Your task to perform on an android device: Search for vegetarian restaurants on Maps Image 0: 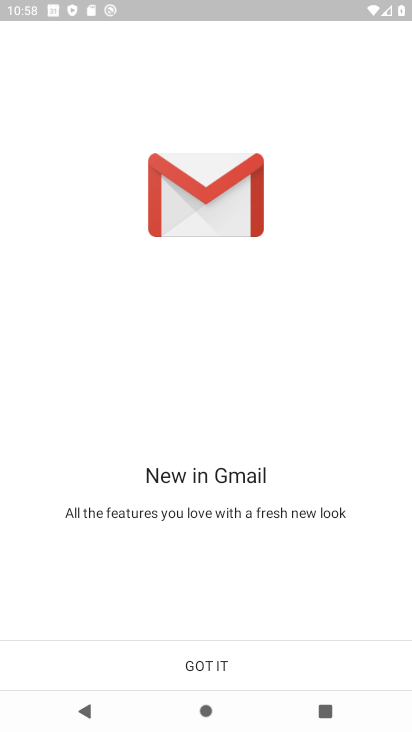
Step 0: press home button
Your task to perform on an android device: Search for vegetarian restaurants on Maps Image 1: 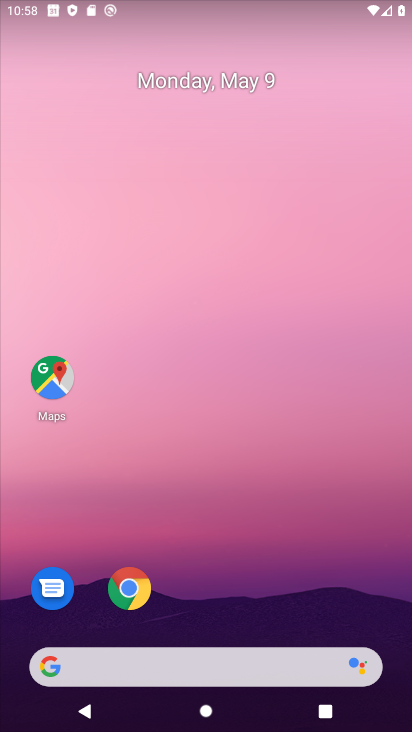
Step 1: click (34, 371)
Your task to perform on an android device: Search for vegetarian restaurants on Maps Image 2: 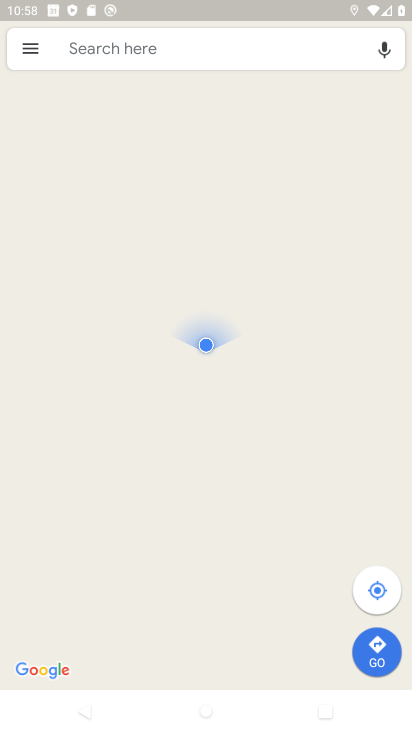
Step 2: click (147, 49)
Your task to perform on an android device: Search for vegetarian restaurants on Maps Image 3: 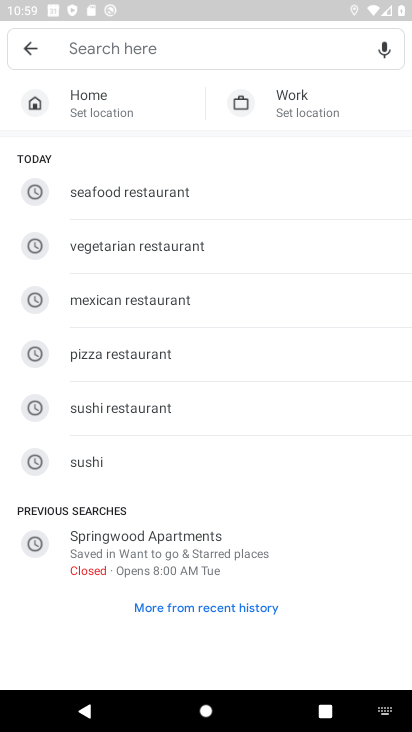
Step 3: type "veget"
Your task to perform on an android device: Search for vegetarian restaurants on Maps Image 4: 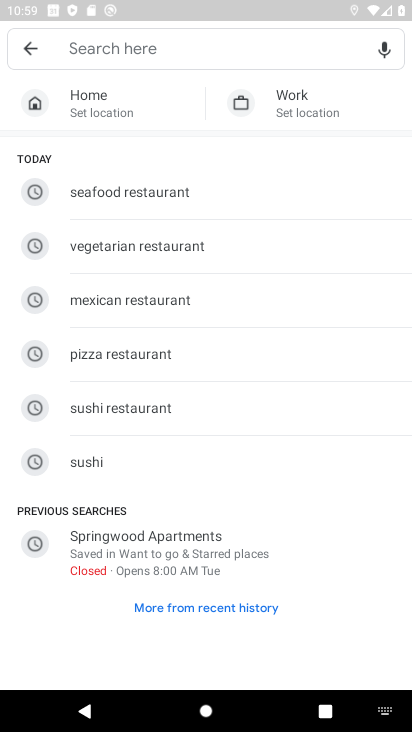
Step 4: click (116, 236)
Your task to perform on an android device: Search for vegetarian restaurants on Maps Image 5: 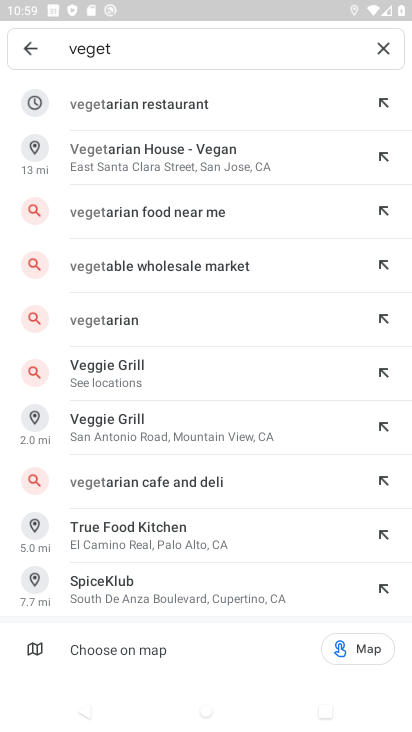
Step 5: click (133, 93)
Your task to perform on an android device: Search for vegetarian restaurants on Maps Image 6: 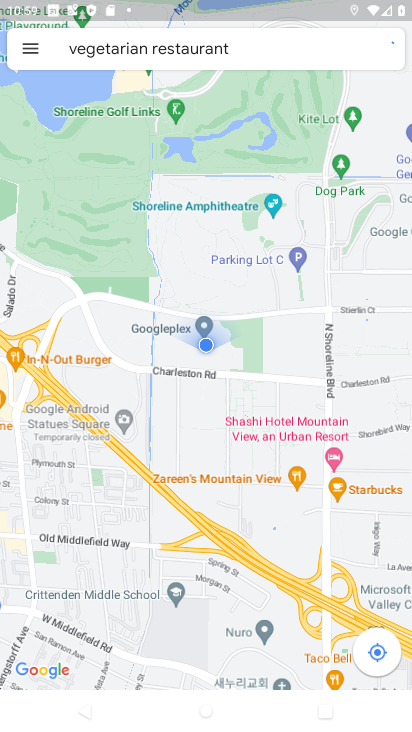
Step 6: task complete